Your task to perform on an android device: When is my next appointment? Image 0: 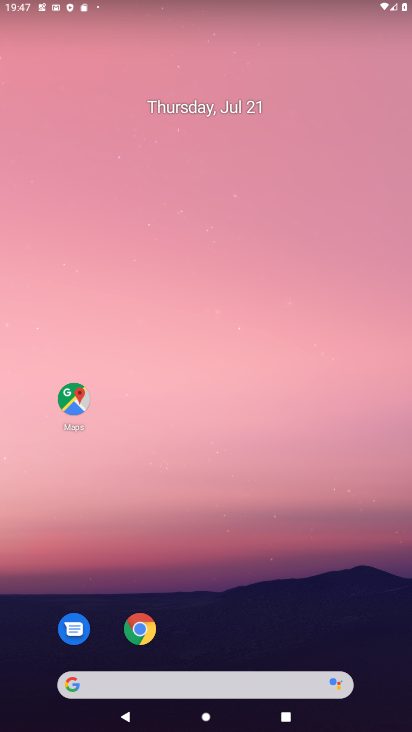
Step 0: press home button
Your task to perform on an android device: When is my next appointment? Image 1: 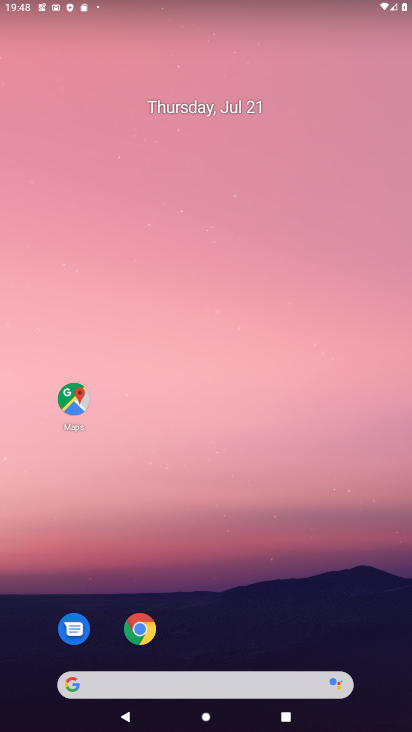
Step 1: drag from (60, 559) to (255, 122)
Your task to perform on an android device: When is my next appointment? Image 2: 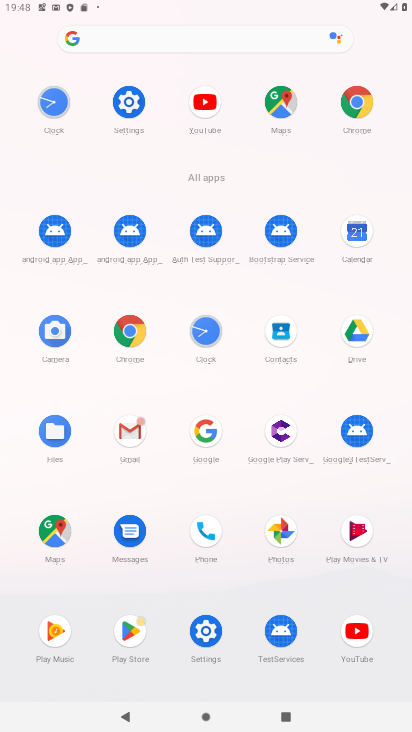
Step 2: click (353, 242)
Your task to perform on an android device: When is my next appointment? Image 3: 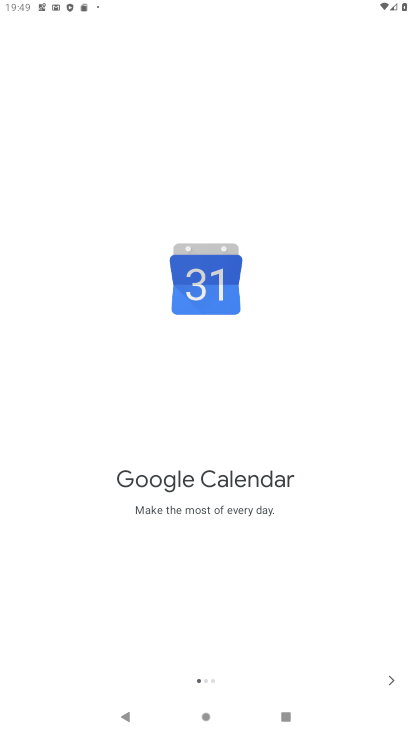
Step 3: task complete